Your task to perform on an android device: Open sound settings Image 0: 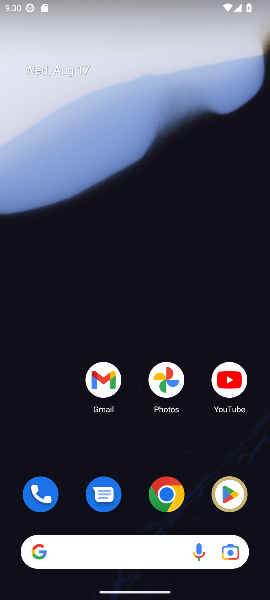
Step 0: drag from (138, 460) to (142, 50)
Your task to perform on an android device: Open sound settings Image 1: 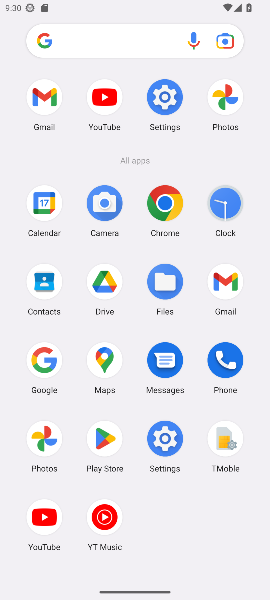
Step 1: click (166, 432)
Your task to perform on an android device: Open sound settings Image 2: 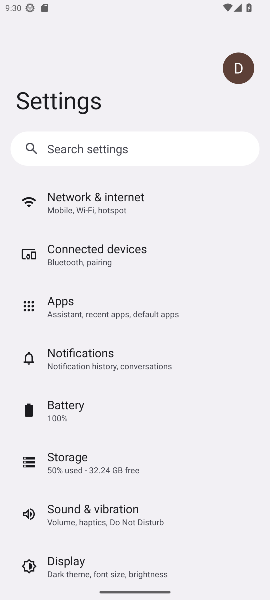
Step 2: drag from (202, 511) to (183, 249)
Your task to perform on an android device: Open sound settings Image 3: 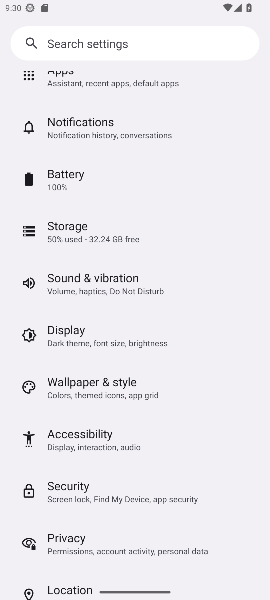
Step 3: click (120, 300)
Your task to perform on an android device: Open sound settings Image 4: 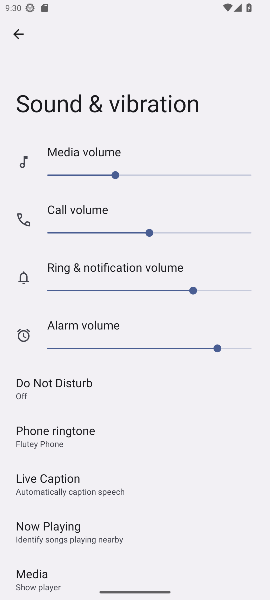
Step 4: task complete